Your task to perform on an android device: Search for "alienware area 51" on amazon.com, select the first entry, and add it to the cart. Image 0: 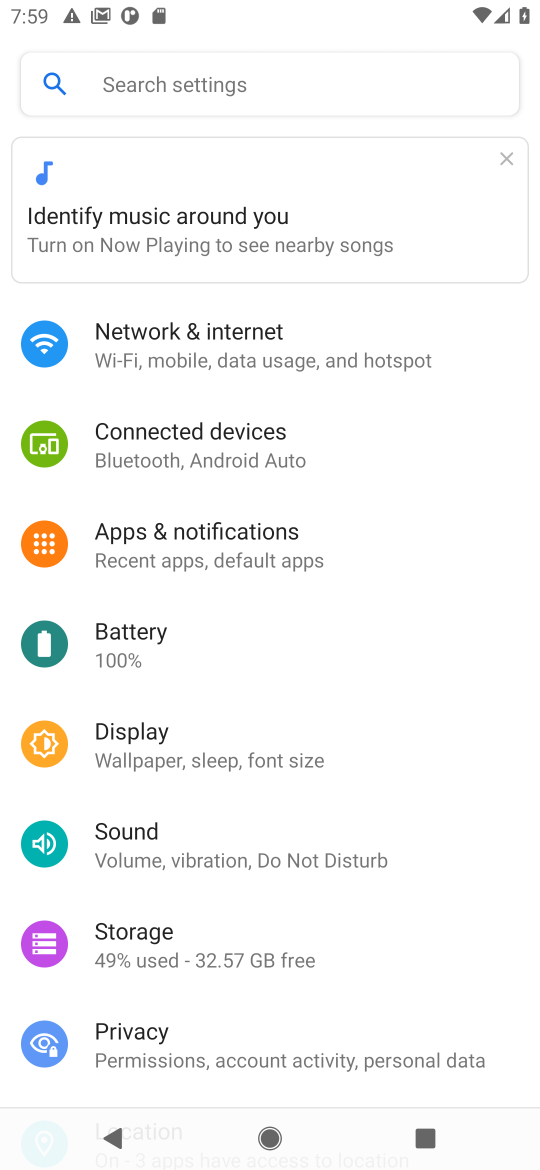
Step 0: press home button
Your task to perform on an android device: Search for "alienware area 51" on amazon.com, select the first entry, and add it to the cart. Image 1: 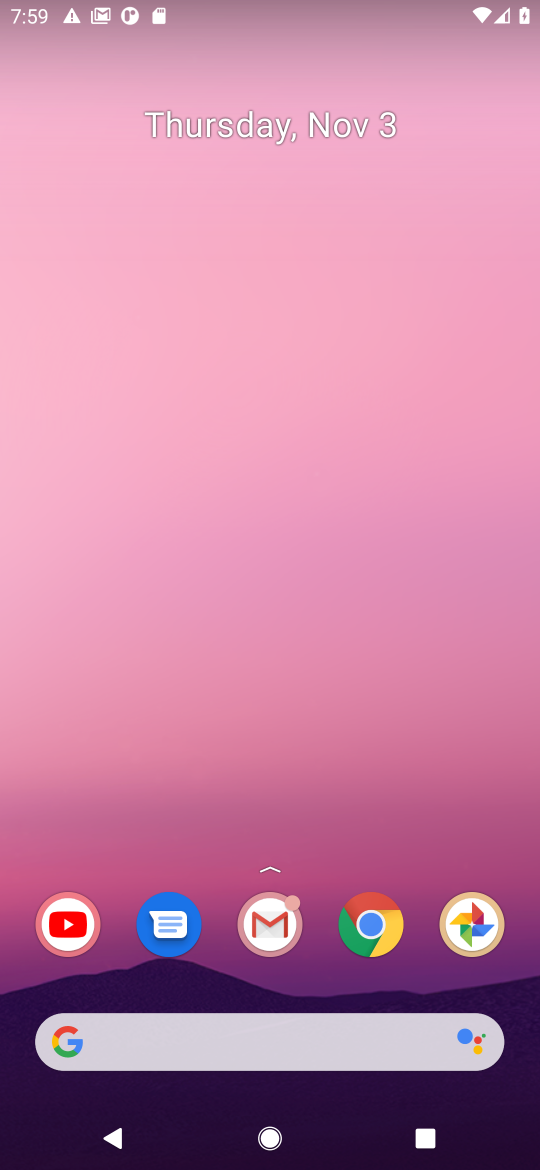
Step 1: click (248, 1035)
Your task to perform on an android device: Search for "alienware area 51" on amazon.com, select the first entry, and add it to the cart. Image 2: 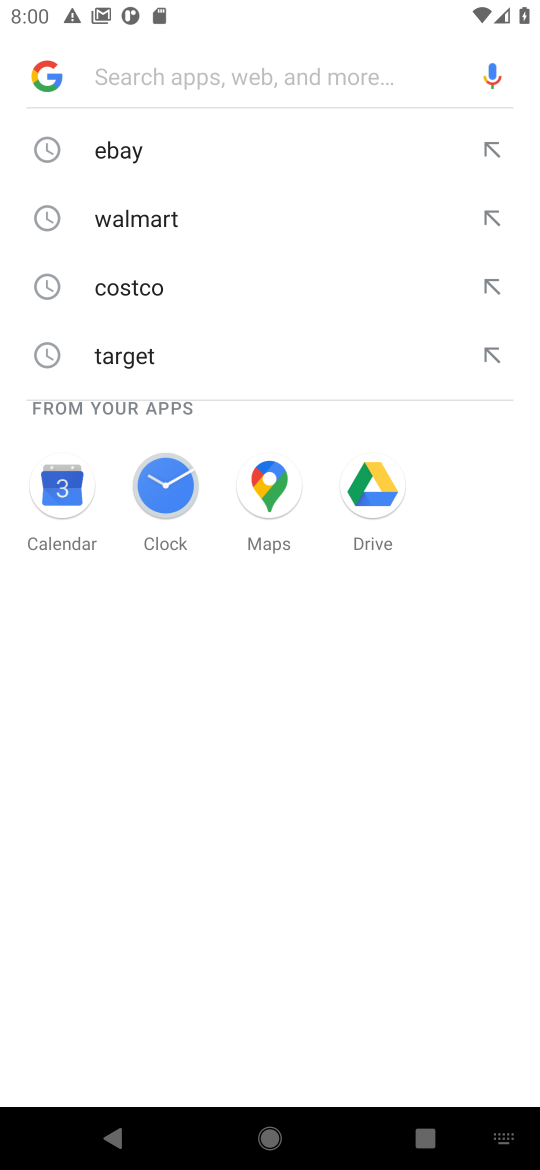
Step 2: type "amazon"
Your task to perform on an android device: Search for "alienware area 51" on amazon.com, select the first entry, and add it to the cart. Image 3: 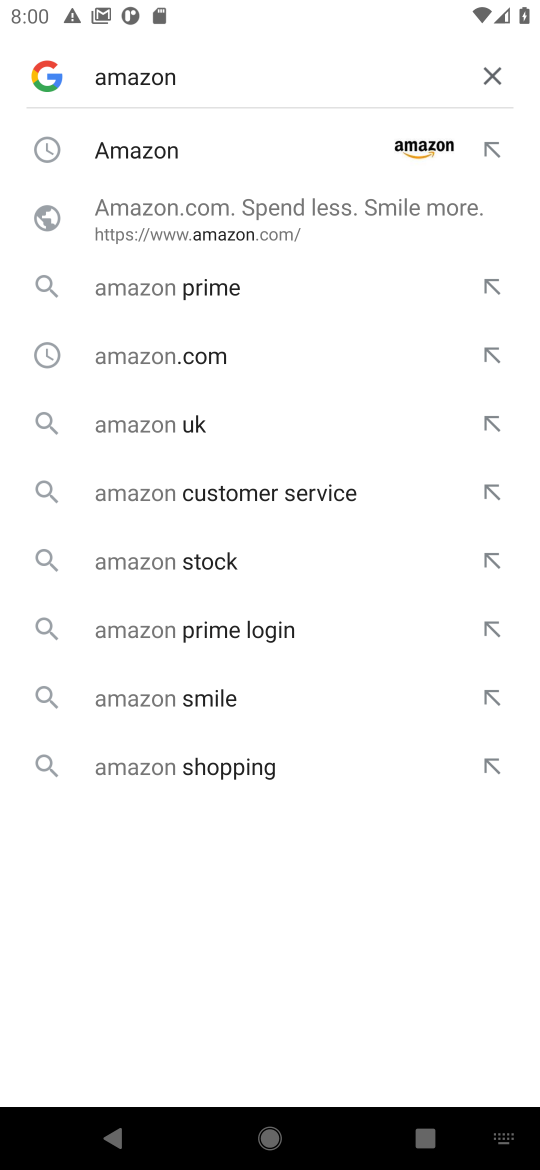
Step 3: click (143, 152)
Your task to perform on an android device: Search for "alienware area 51" on amazon.com, select the first entry, and add it to the cart. Image 4: 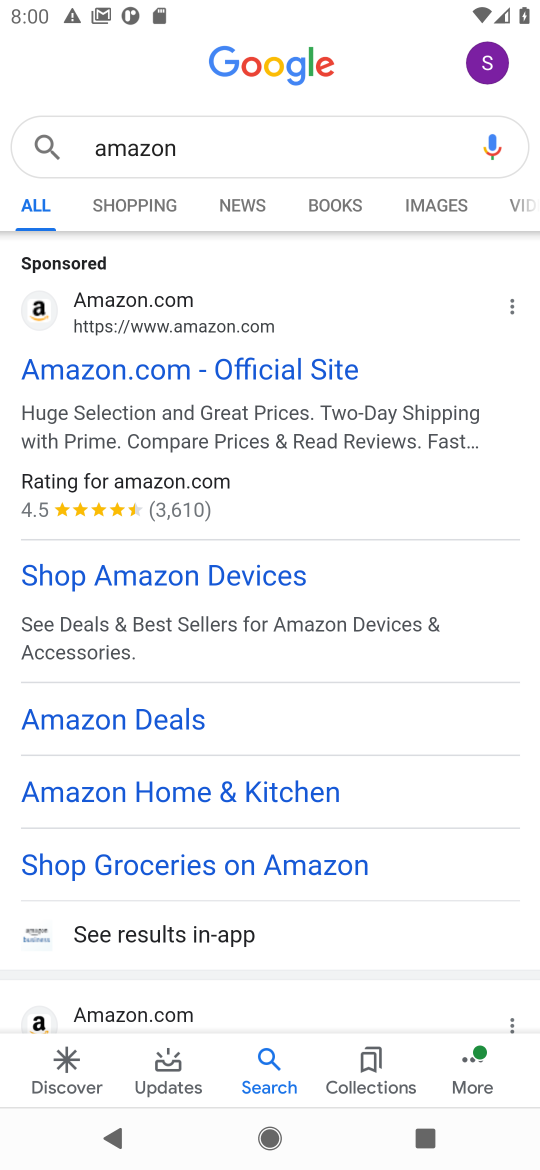
Step 4: click (120, 295)
Your task to perform on an android device: Search for "alienware area 51" on amazon.com, select the first entry, and add it to the cart. Image 5: 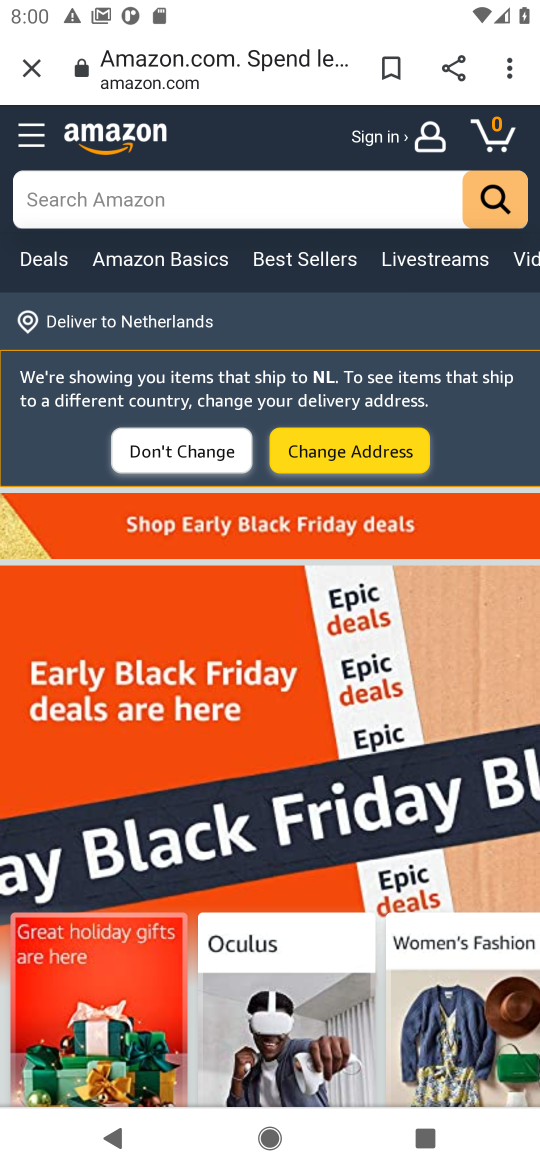
Step 5: click (225, 185)
Your task to perform on an android device: Search for "alienware area 51" on amazon.com, select the first entry, and add it to the cart. Image 6: 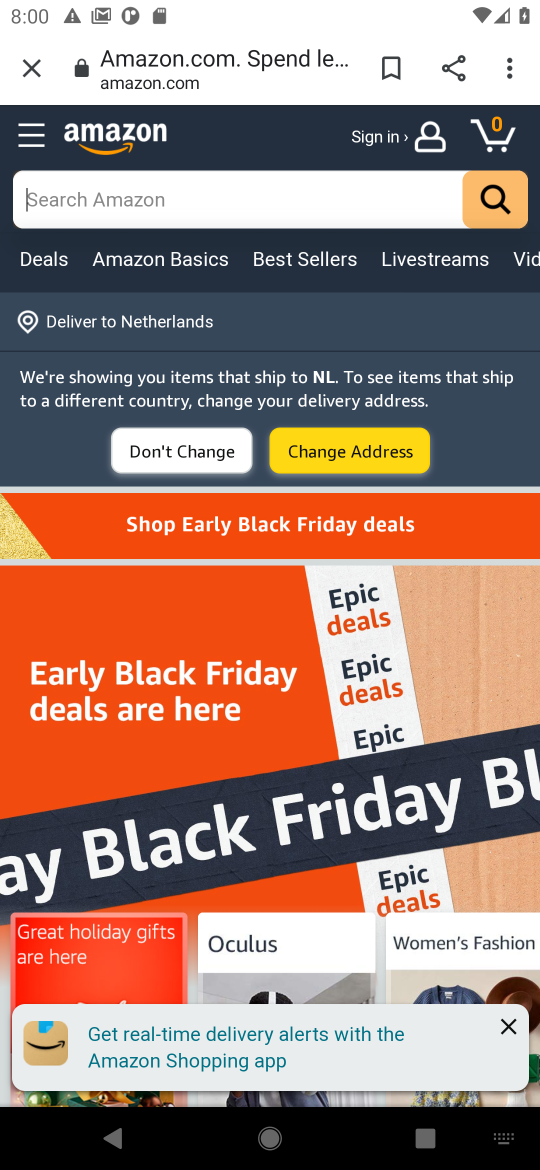
Step 6: type "alienware area 51"
Your task to perform on an android device: Search for "alienware area 51" on amazon.com, select the first entry, and add it to the cart. Image 7: 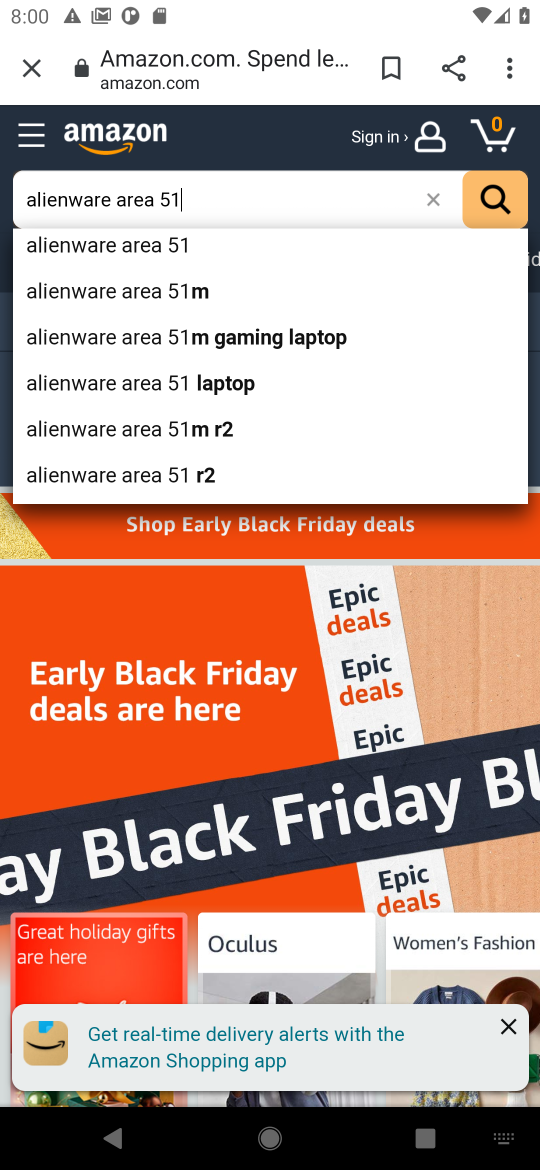
Step 7: click (155, 246)
Your task to perform on an android device: Search for "alienware area 51" on amazon.com, select the first entry, and add it to the cart. Image 8: 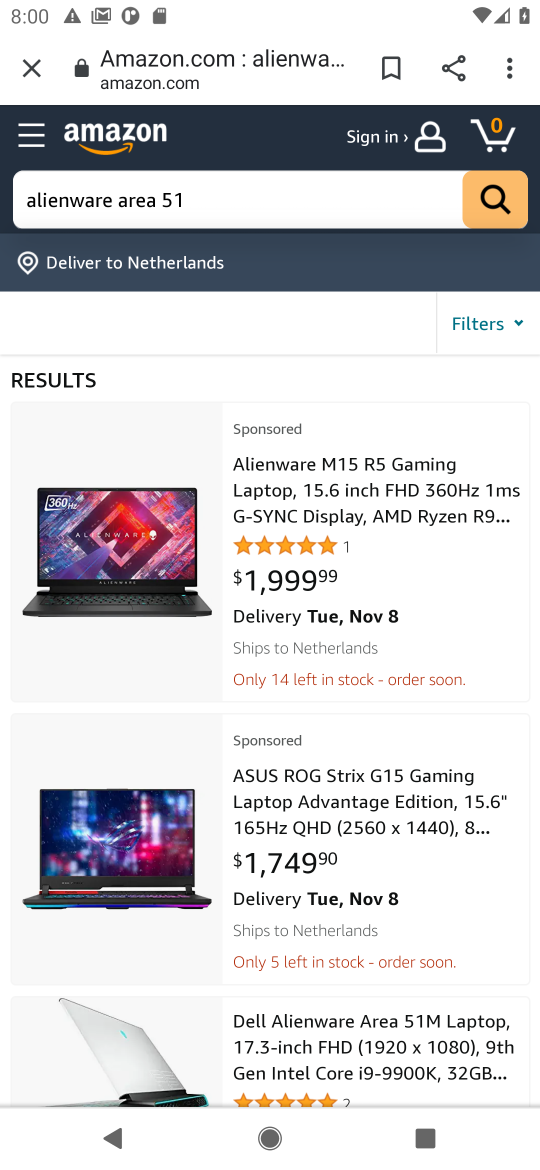
Step 8: click (333, 482)
Your task to perform on an android device: Search for "alienware area 51" on amazon.com, select the first entry, and add it to the cart. Image 9: 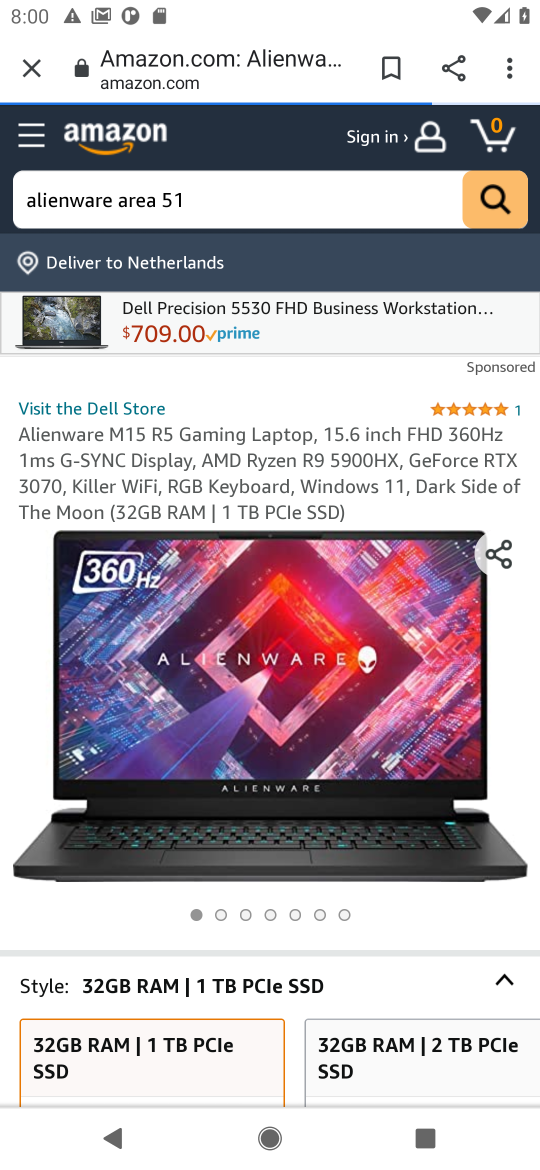
Step 9: drag from (384, 943) to (337, 480)
Your task to perform on an android device: Search for "alienware area 51" on amazon.com, select the first entry, and add it to the cart. Image 10: 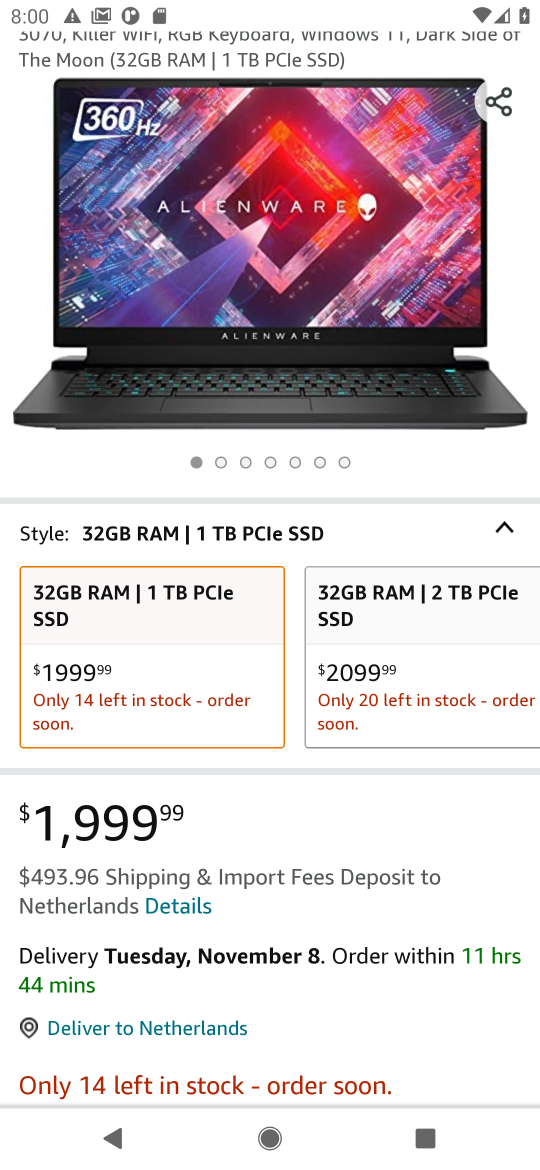
Step 10: drag from (377, 803) to (336, 436)
Your task to perform on an android device: Search for "alienware area 51" on amazon.com, select the first entry, and add it to the cart. Image 11: 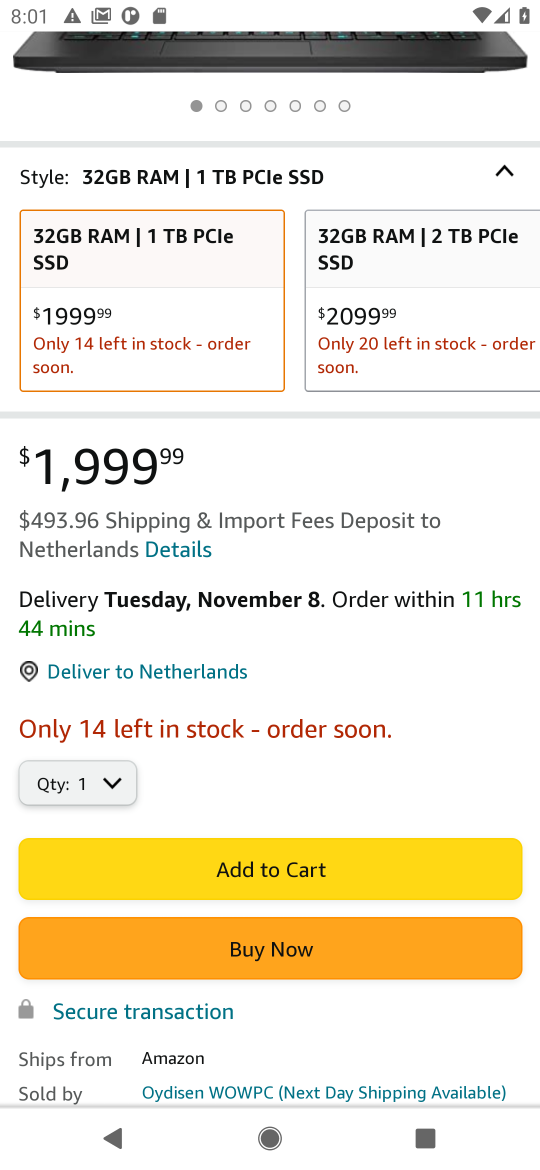
Step 11: click (269, 868)
Your task to perform on an android device: Search for "alienware area 51" on amazon.com, select the first entry, and add it to the cart. Image 12: 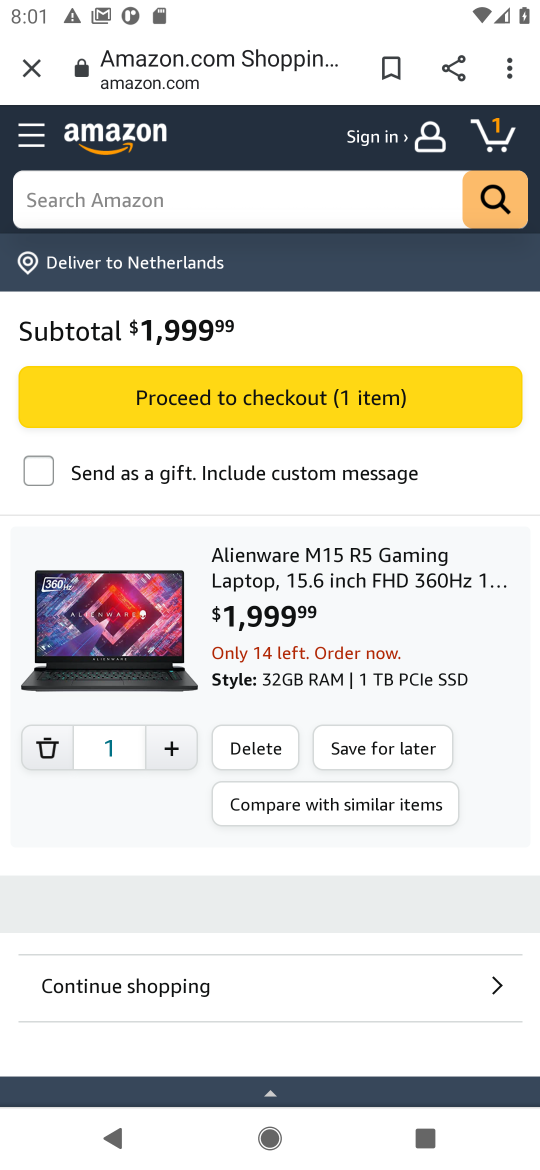
Step 12: task complete